Your task to perform on an android device: turn on notifications settings in the gmail app Image 0: 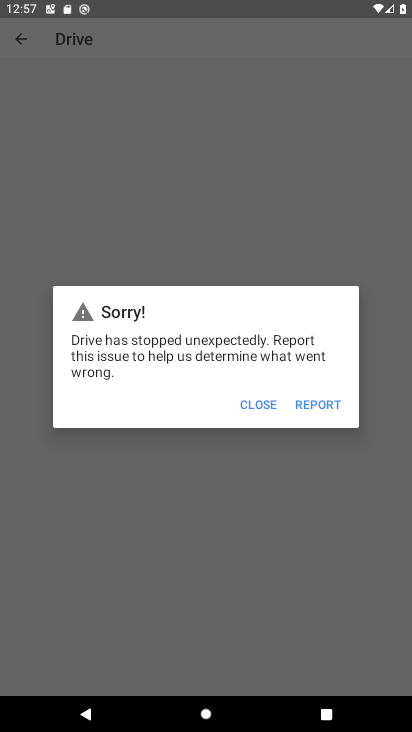
Step 0: press home button
Your task to perform on an android device: turn on notifications settings in the gmail app Image 1: 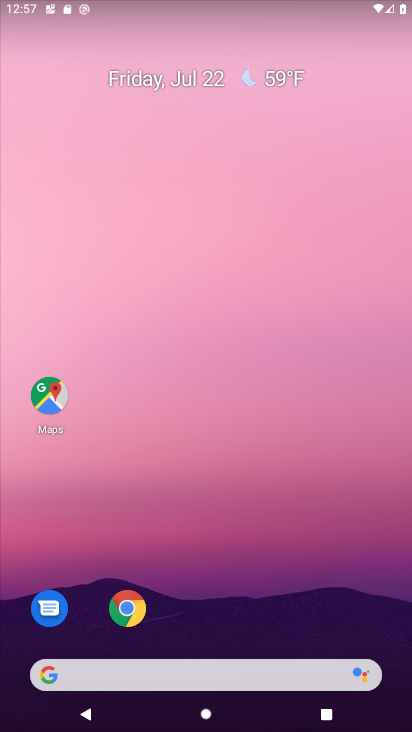
Step 1: drag from (187, 447) to (204, 39)
Your task to perform on an android device: turn on notifications settings in the gmail app Image 2: 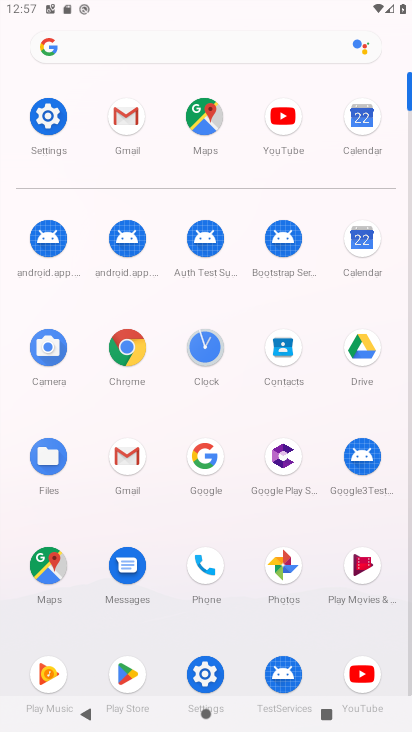
Step 2: click (131, 466)
Your task to perform on an android device: turn on notifications settings in the gmail app Image 3: 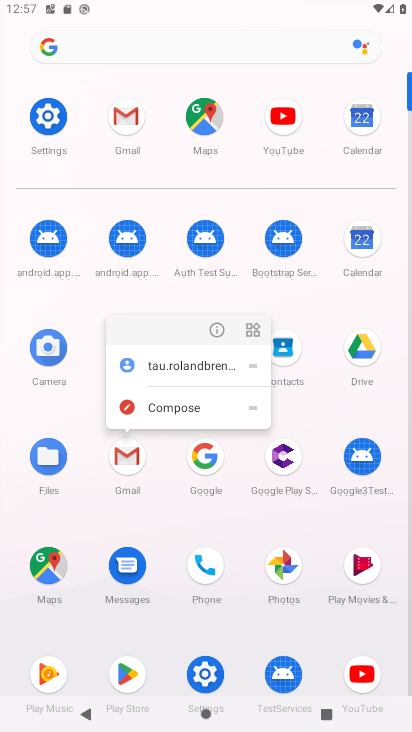
Step 3: click (129, 463)
Your task to perform on an android device: turn on notifications settings in the gmail app Image 4: 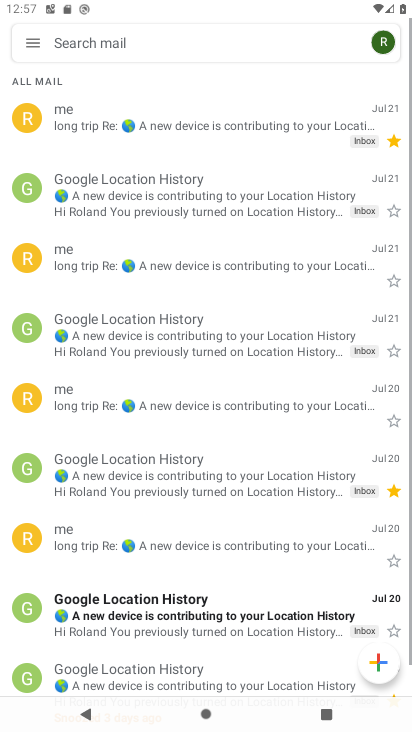
Step 4: click (34, 47)
Your task to perform on an android device: turn on notifications settings in the gmail app Image 5: 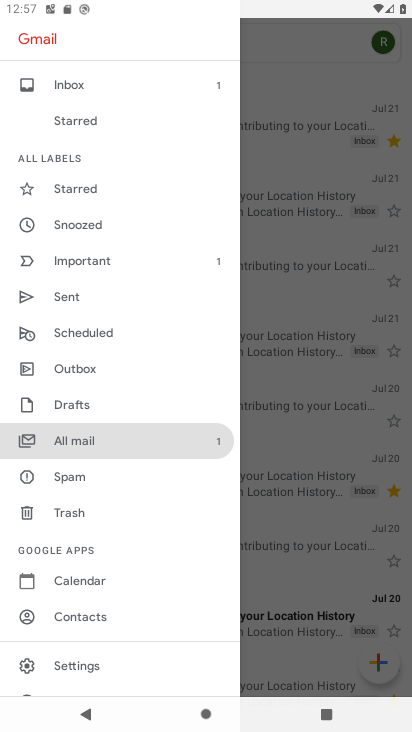
Step 5: click (70, 670)
Your task to perform on an android device: turn on notifications settings in the gmail app Image 6: 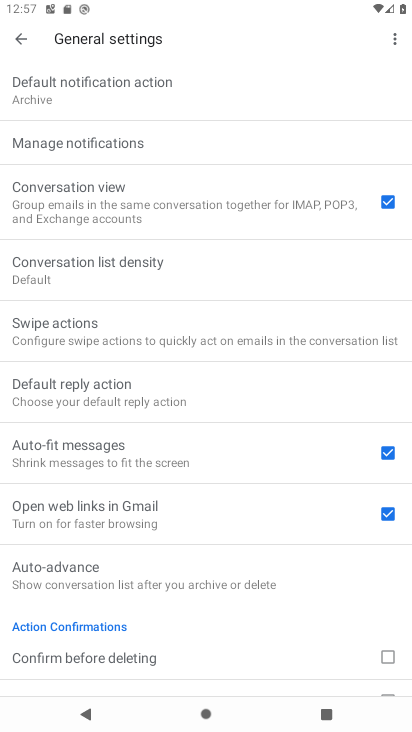
Step 6: click (74, 137)
Your task to perform on an android device: turn on notifications settings in the gmail app Image 7: 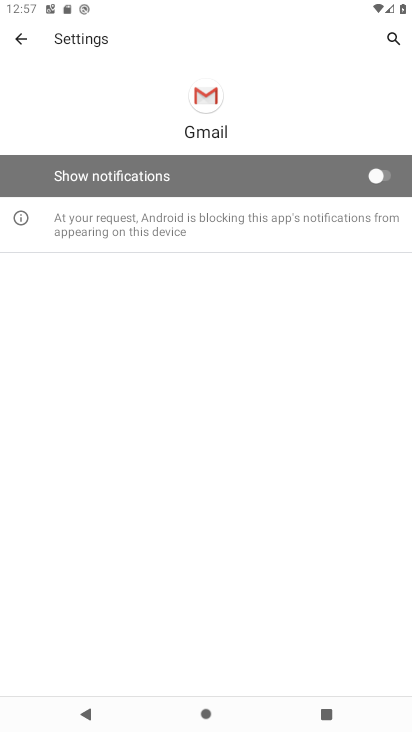
Step 7: click (388, 179)
Your task to perform on an android device: turn on notifications settings in the gmail app Image 8: 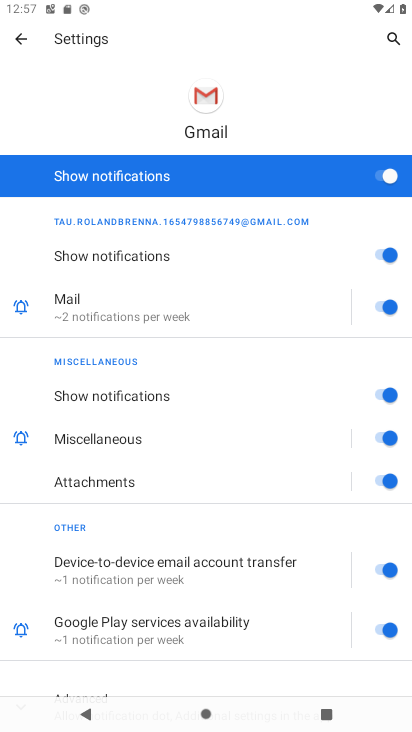
Step 8: task complete